Your task to perform on an android device: delete the emails in spam in the gmail app Image 0: 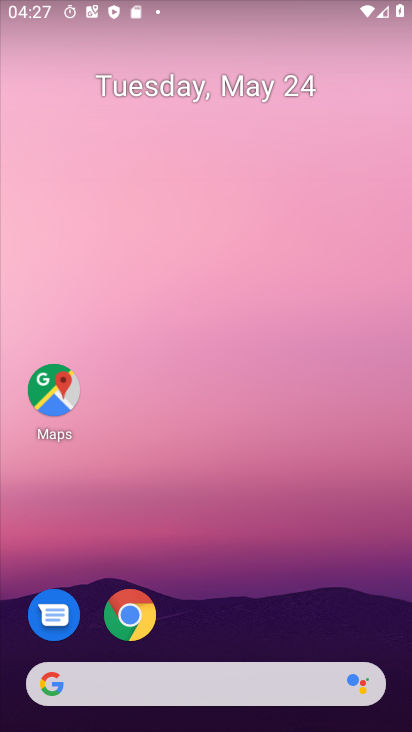
Step 0: drag from (214, 612) to (296, 65)
Your task to perform on an android device: delete the emails in spam in the gmail app Image 1: 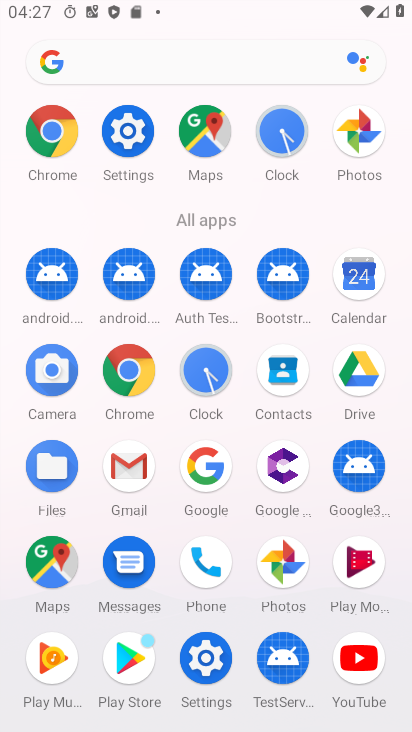
Step 1: click (129, 454)
Your task to perform on an android device: delete the emails in spam in the gmail app Image 2: 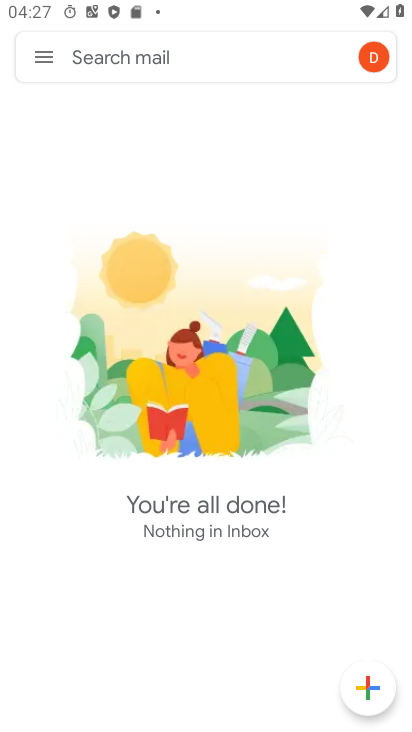
Step 2: click (38, 53)
Your task to perform on an android device: delete the emails in spam in the gmail app Image 3: 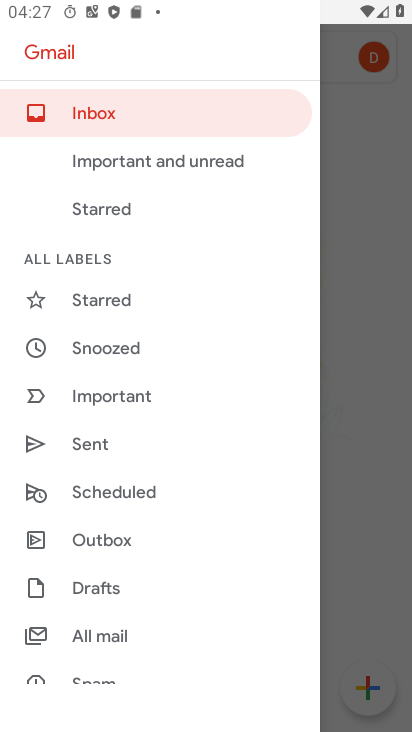
Step 3: drag from (108, 635) to (174, 279)
Your task to perform on an android device: delete the emails in spam in the gmail app Image 4: 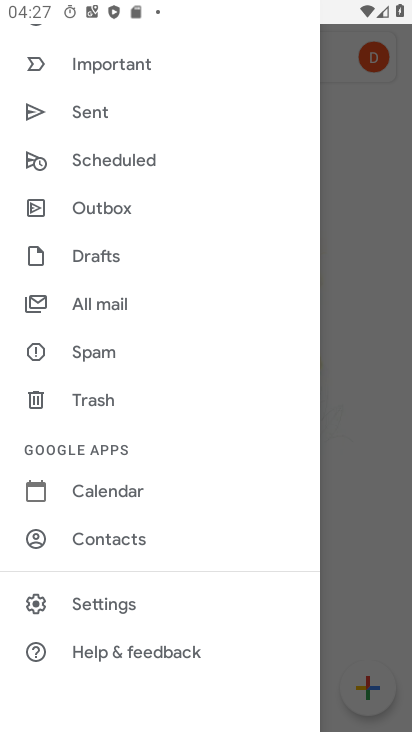
Step 4: click (96, 351)
Your task to perform on an android device: delete the emails in spam in the gmail app Image 5: 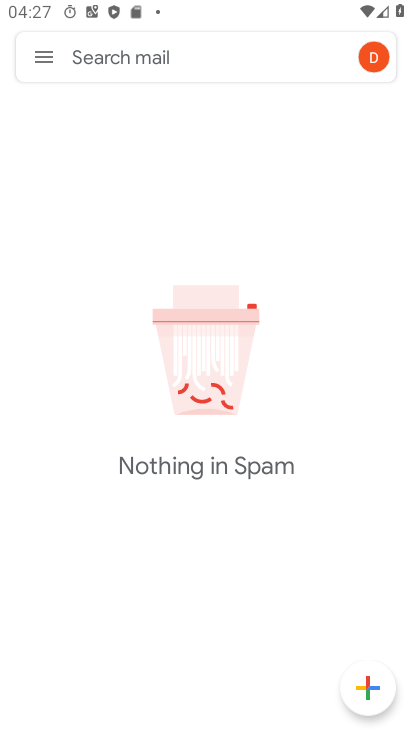
Step 5: task complete